Your task to perform on an android device: Open Google Maps Image 0: 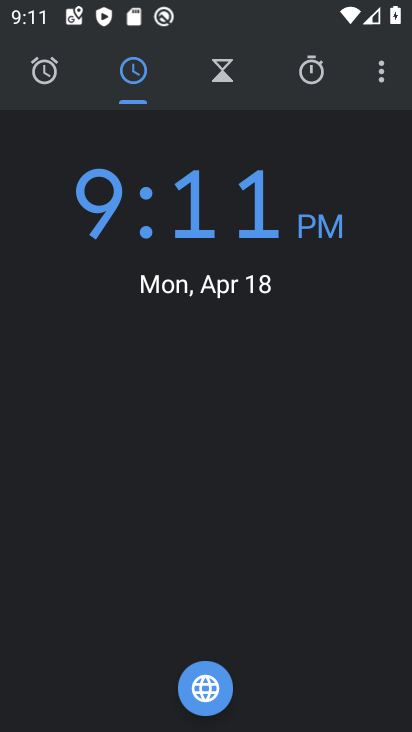
Step 0: press back button
Your task to perform on an android device: Open Google Maps Image 1: 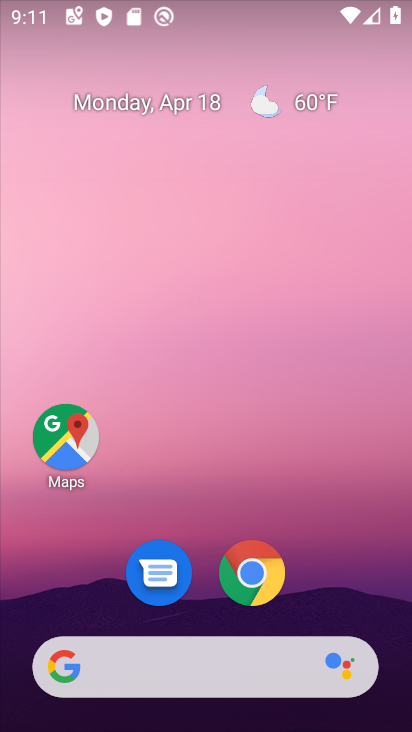
Step 1: drag from (209, 724) to (207, 77)
Your task to perform on an android device: Open Google Maps Image 2: 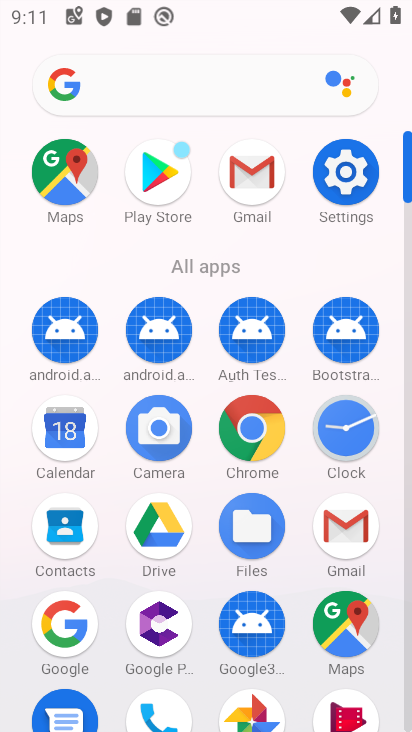
Step 2: click (352, 626)
Your task to perform on an android device: Open Google Maps Image 3: 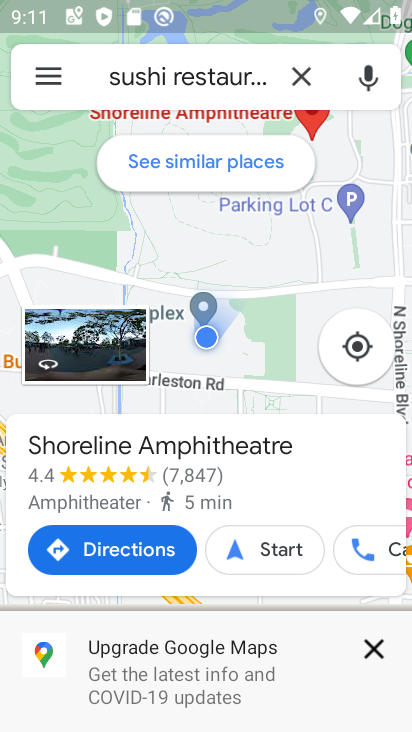
Step 3: task complete